Your task to perform on an android device: open the mobile data screen to see how much data has been used Image 0: 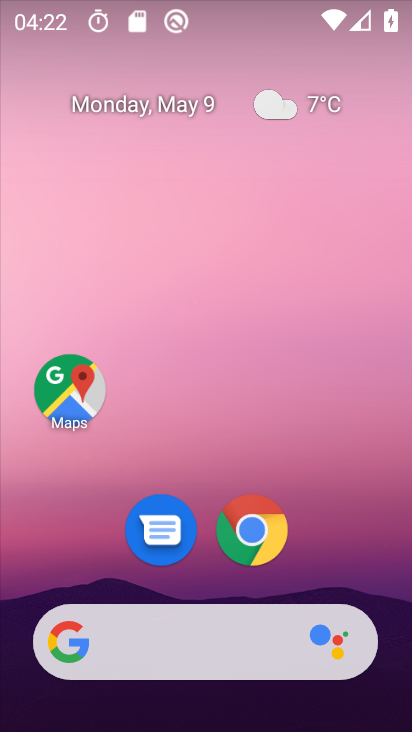
Step 0: drag from (184, 591) to (263, 68)
Your task to perform on an android device: open the mobile data screen to see how much data has been used Image 1: 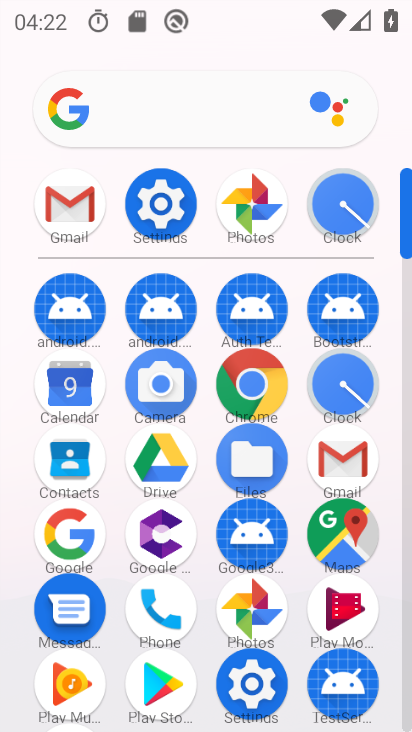
Step 1: click (162, 196)
Your task to perform on an android device: open the mobile data screen to see how much data has been used Image 2: 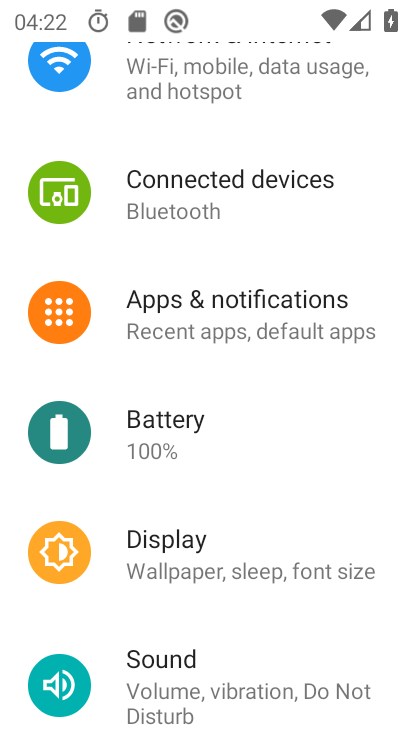
Step 2: drag from (234, 209) to (153, 636)
Your task to perform on an android device: open the mobile data screen to see how much data has been used Image 3: 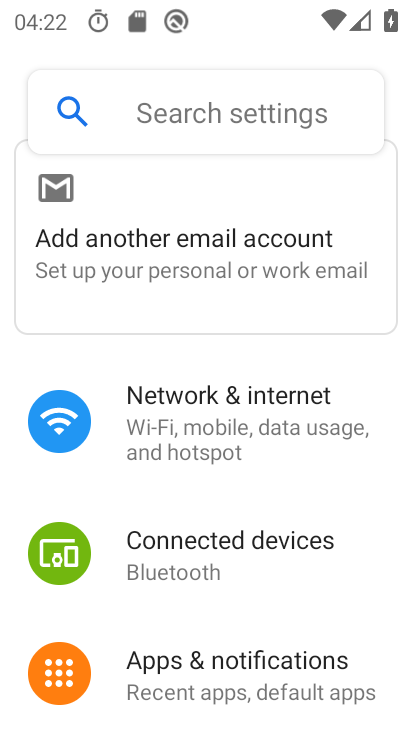
Step 3: click (174, 408)
Your task to perform on an android device: open the mobile data screen to see how much data has been used Image 4: 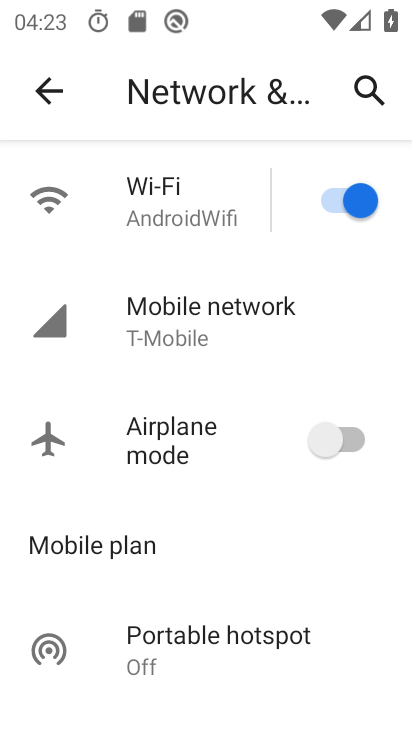
Step 4: drag from (189, 650) to (245, 469)
Your task to perform on an android device: open the mobile data screen to see how much data has been used Image 5: 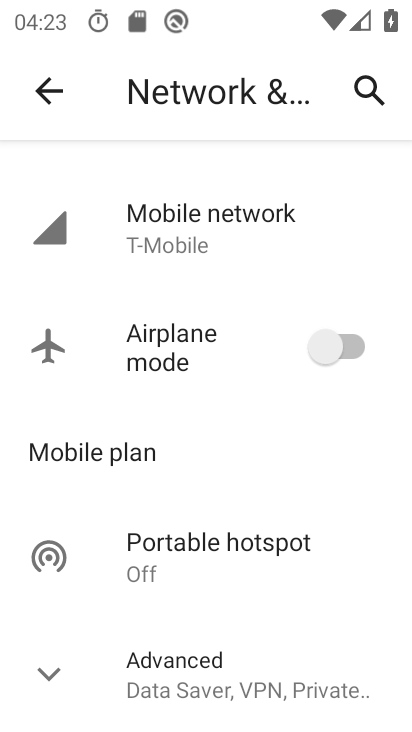
Step 5: click (184, 215)
Your task to perform on an android device: open the mobile data screen to see how much data has been used Image 6: 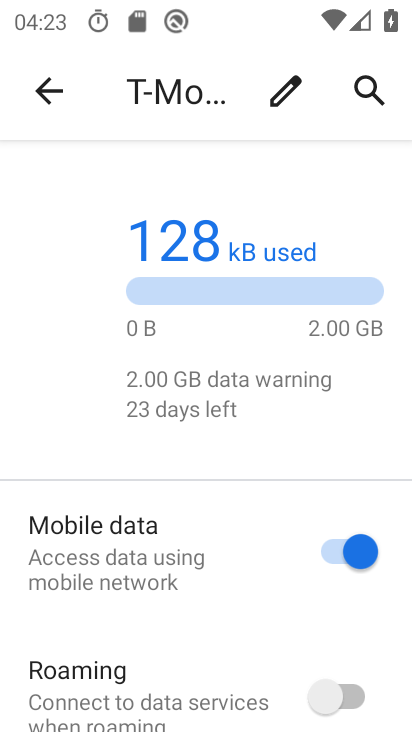
Step 6: drag from (160, 652) to (216, 255)
Your task to perform on an android device: open the mobile data screen to see how much data has been used Image 7: 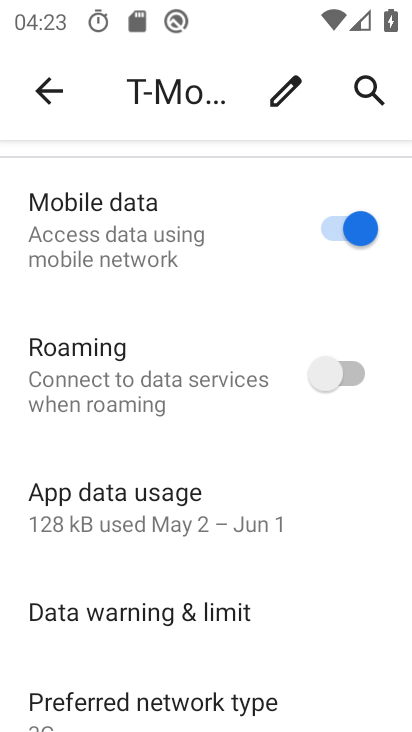
Step 7: click (84, 479)
Your task to perform on an android device: open the mobile data screen to see how much data has been used Image 8: 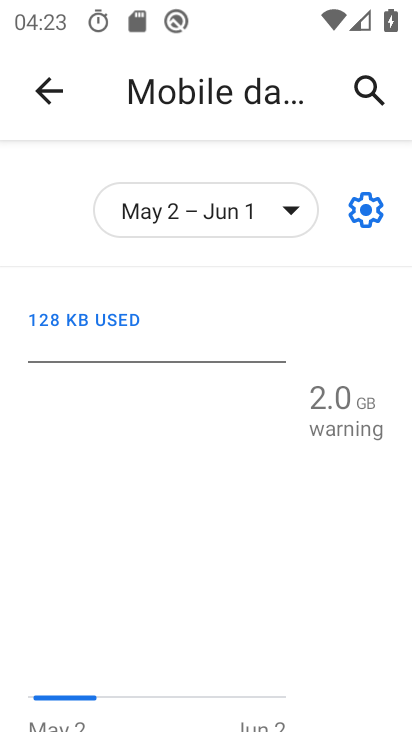
Step 8: task complete